Your task to perform on an android device: What's the weather going to be tomorrow? Image 0: 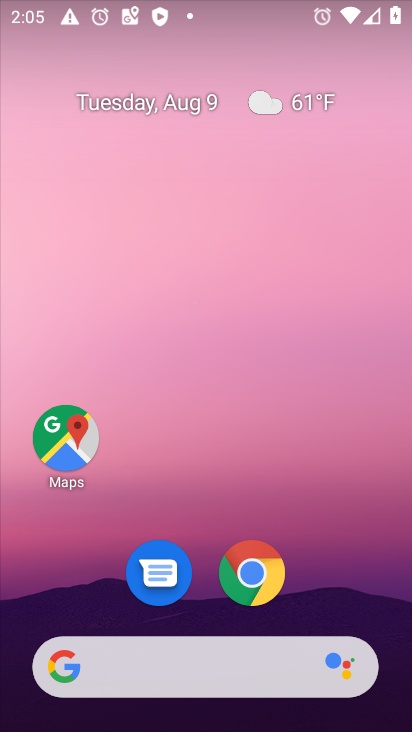
Step 0: click (254, 670)
Your task to perform on an android device: What's the weather going to be tomorrow? Image 1: 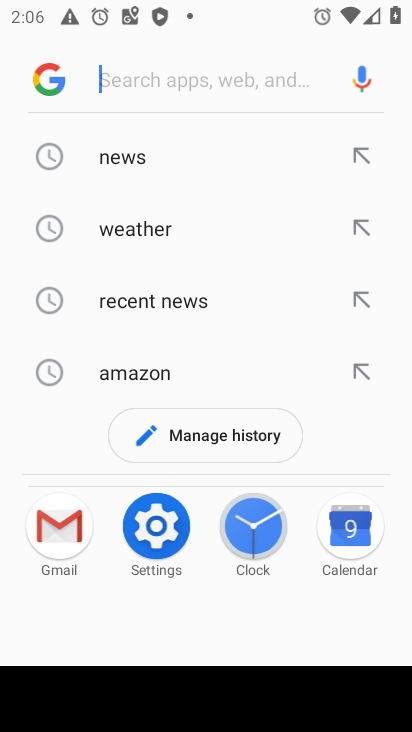
Step 1: click (142, 229)
Your task to perform on an android device: What's the weather going to be tomorrow? Image 2: 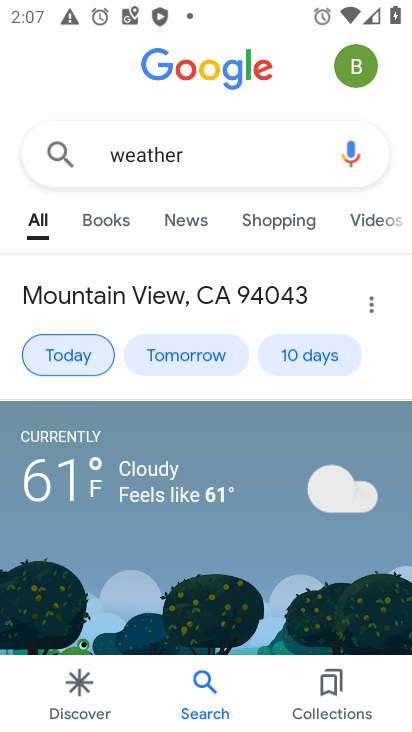
Step 2: click (148, 368)
Your task to perform on an android device: What's the weather going to be tomorrow? Image 3: 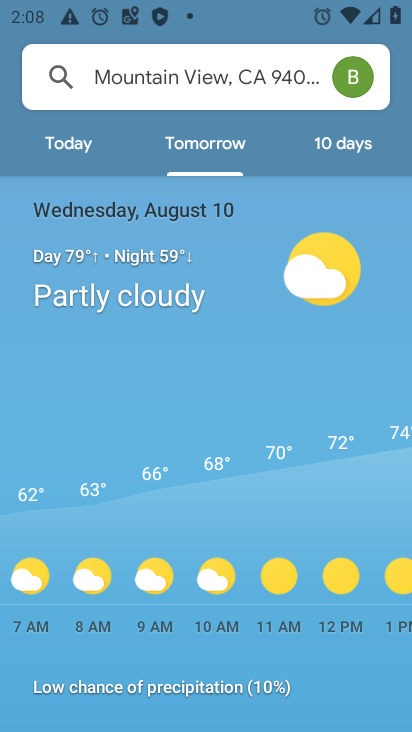
Step 3: task complete